Your task to perform on an android device: Open accessibility settings Image 0: 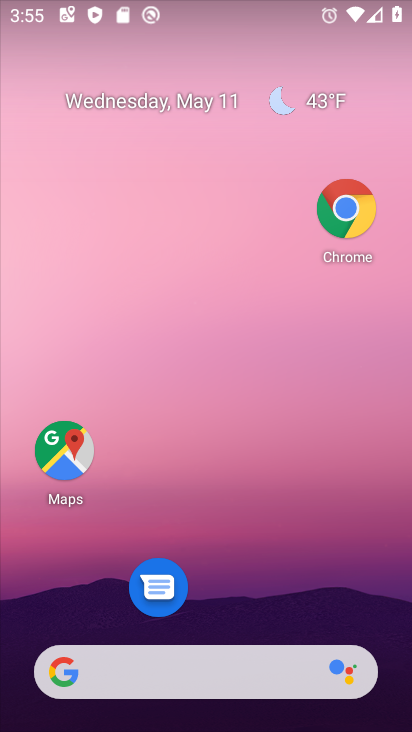
Step 0: drag from (328, 485) to (346, 106)
Your task to perform on an android device: Open accessibility settings Image 1: 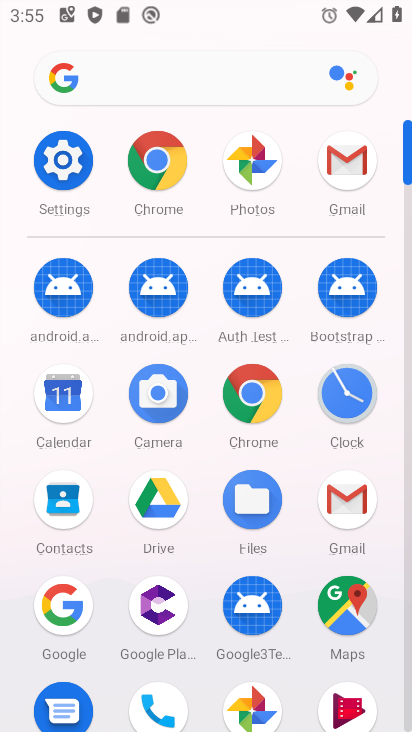
Step 1: click (64, 155)
Your task to perform on an android device: Open accessibility settings Image 2: 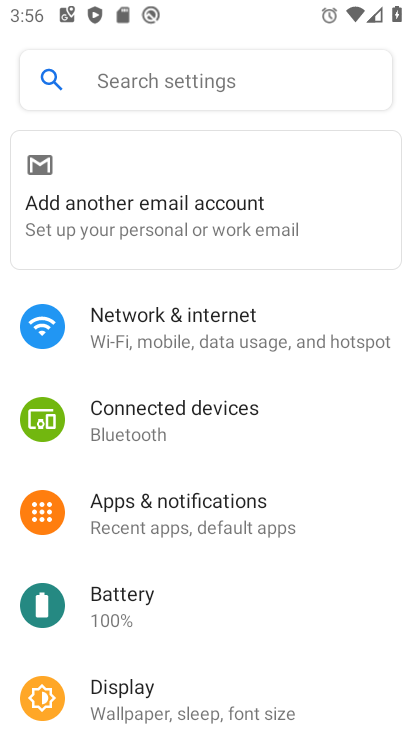
Step 2: drag from (241, 623) to (276, 254)
Your task to perform on an android device: Open accessibility settings Image 3: 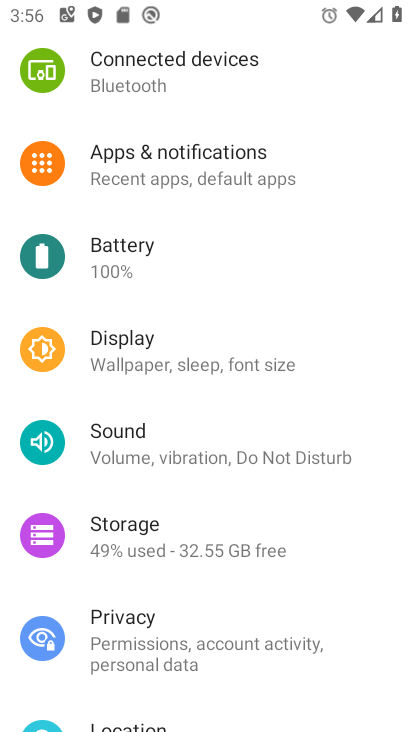
Step 3: drag from (220, 329) to (193, 75)
Your task to perform on an android device: Open accessibility settings Image 4: 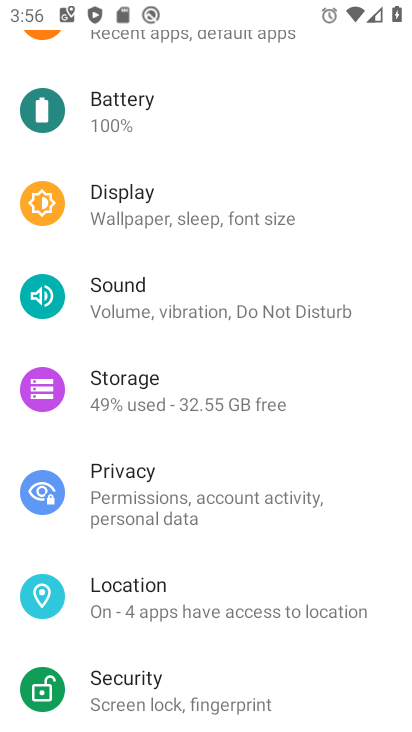
Step 4: drag from (258, 554) to (191, 128)
Your task to perform on an android device: Open accessibility settings Image 5: 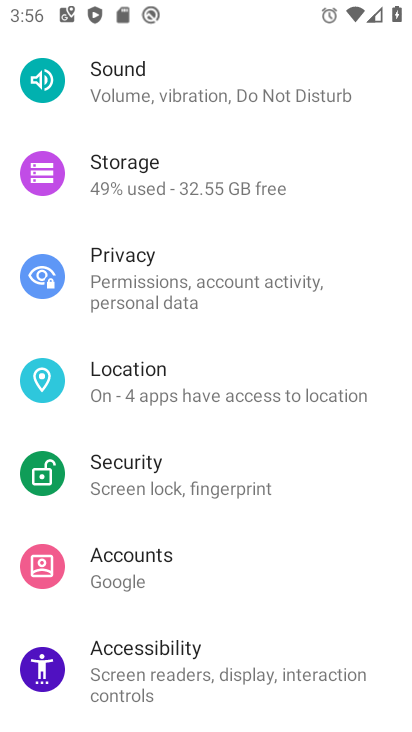
Step 5: click (264, 658)
Your task to perform on an android device: Open accessibility settings Image 6: 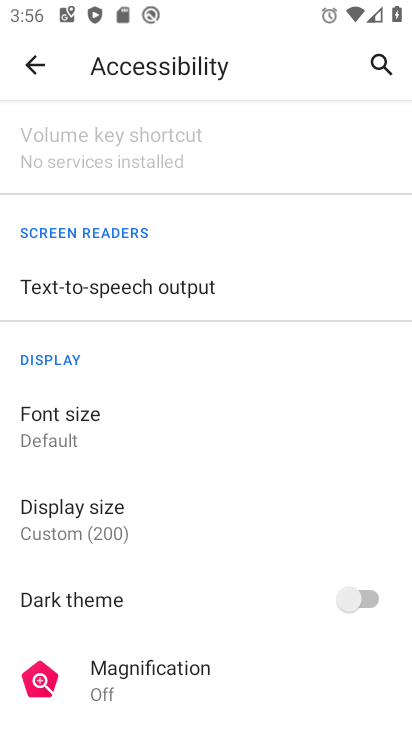
Step 6: task complete